Your task to perform on an android device: turn off picture-in-picture Image 0: 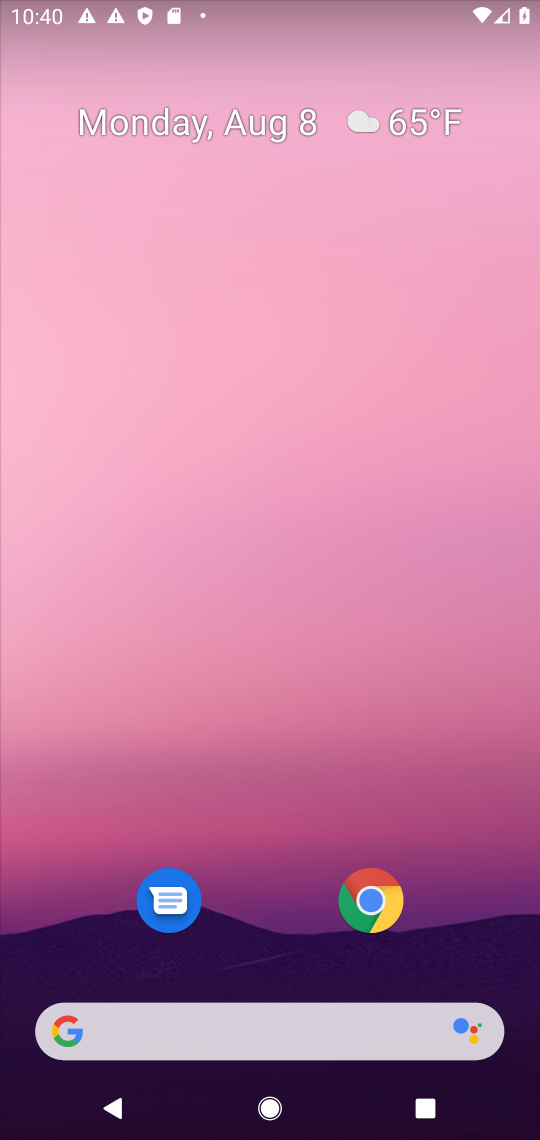
Step 0: drag from (237, 950) to (240, 149)
Your task to perform on an android device: turn off picture-in-picture Image 1: 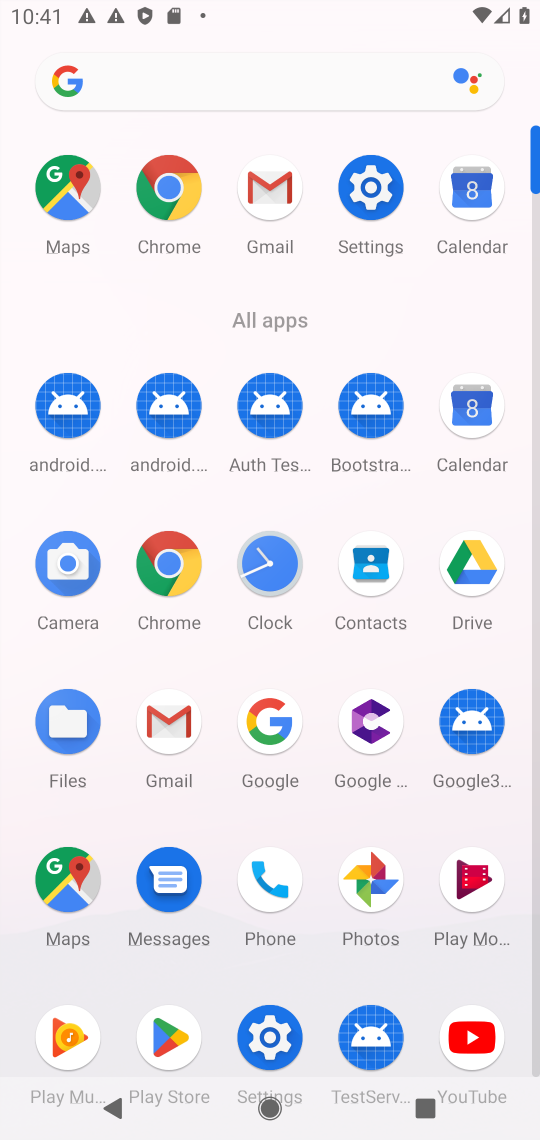
Step 1: click (374, 196)
Your task to perform on an android device: turn off picture-in-picture Image 2: 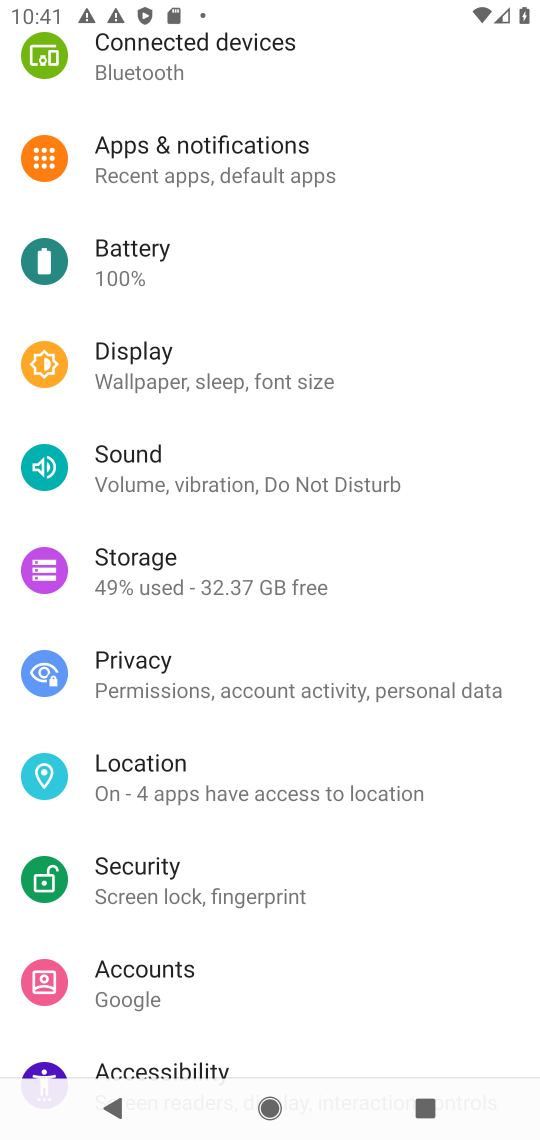
Step 2: click (198, 153)
Your task to perform on an android device: turn off picture-in-picture Image 3: 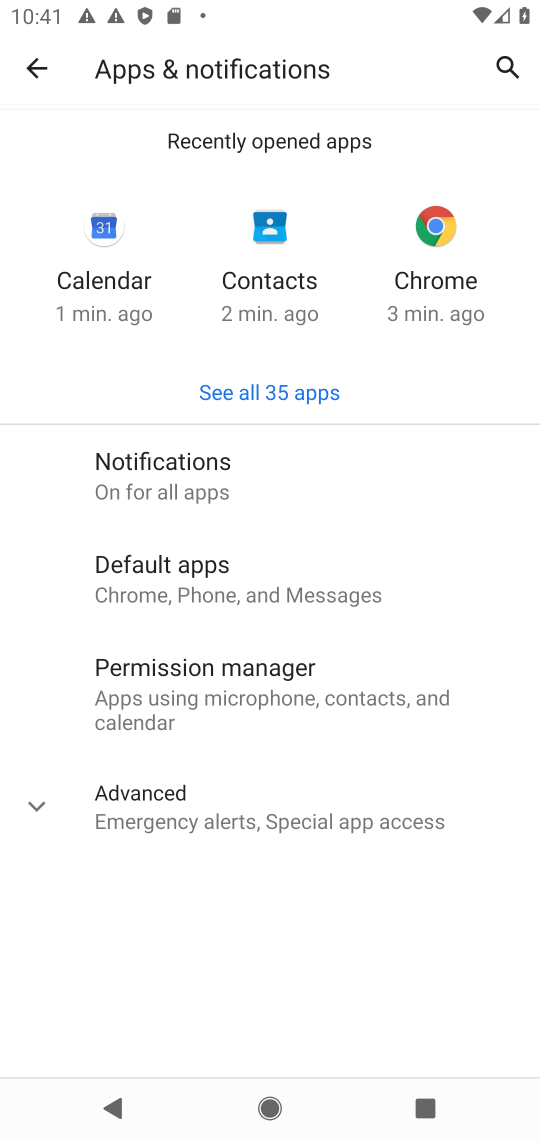
Step 3: click (146, 817)
Your task to perform on an android device: turn off picture-in-picture Image 4: 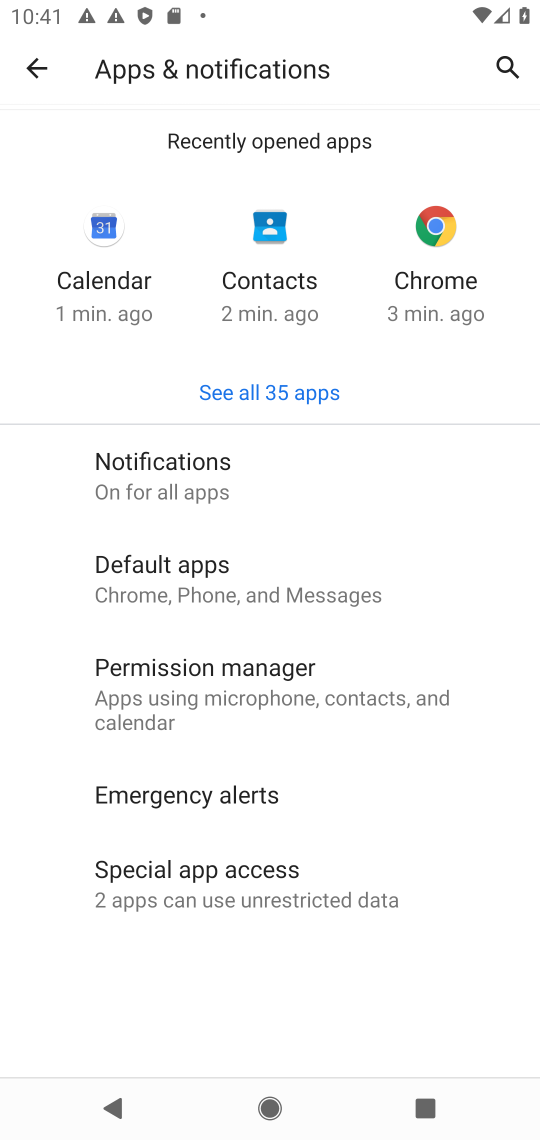
Step 4: click (186, 870)
Your task to perform on an android device: turn off picture-in-picture Image 5: 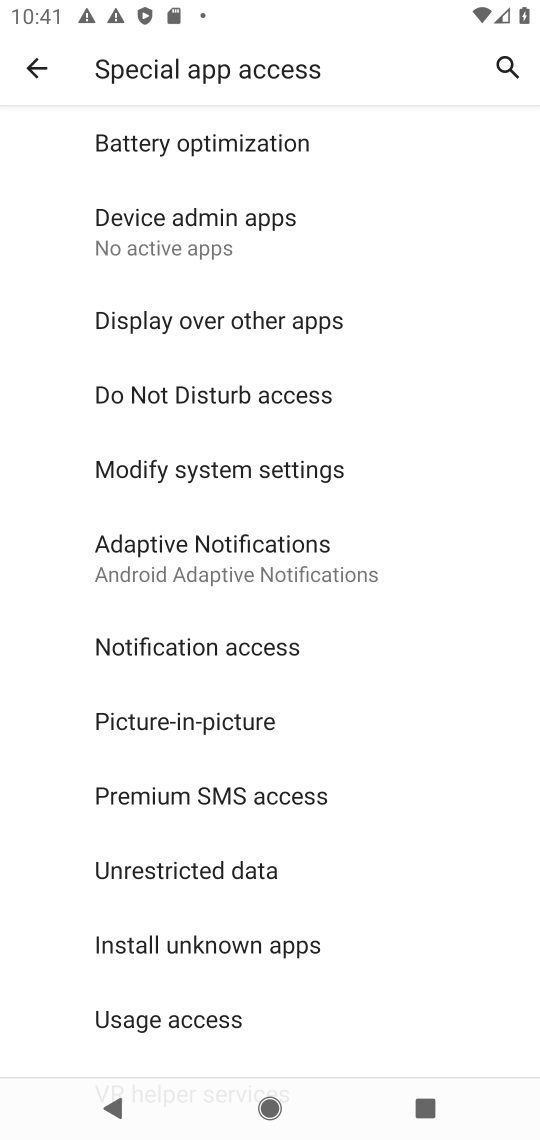
Step 5: click (221, 730)
Your task to perform on an android device: turn off picture-in-picture Image 6: 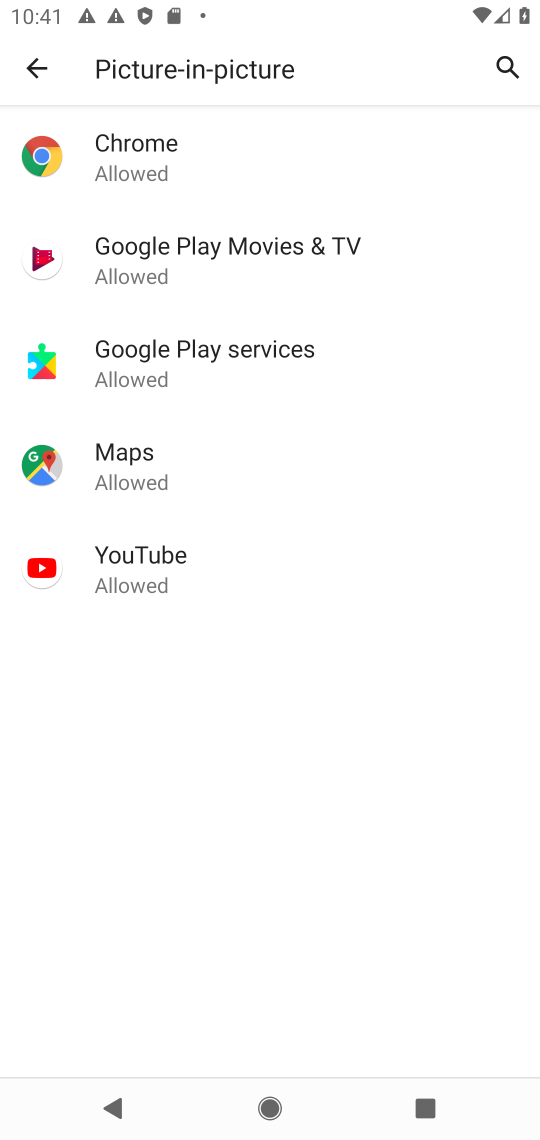
Step 6: click (143, 139)
Your task to perform on an android device: turn off picture-in-picture Image 7: 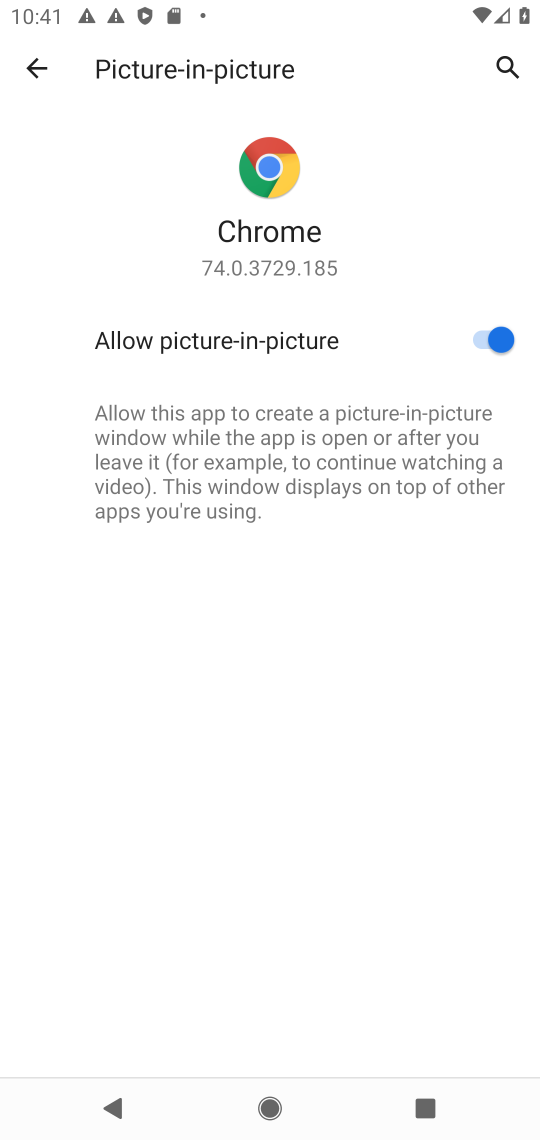
Step 7: click (473, 335)
Your task to perform on an android device: turn off picture-in-picture Image 8: 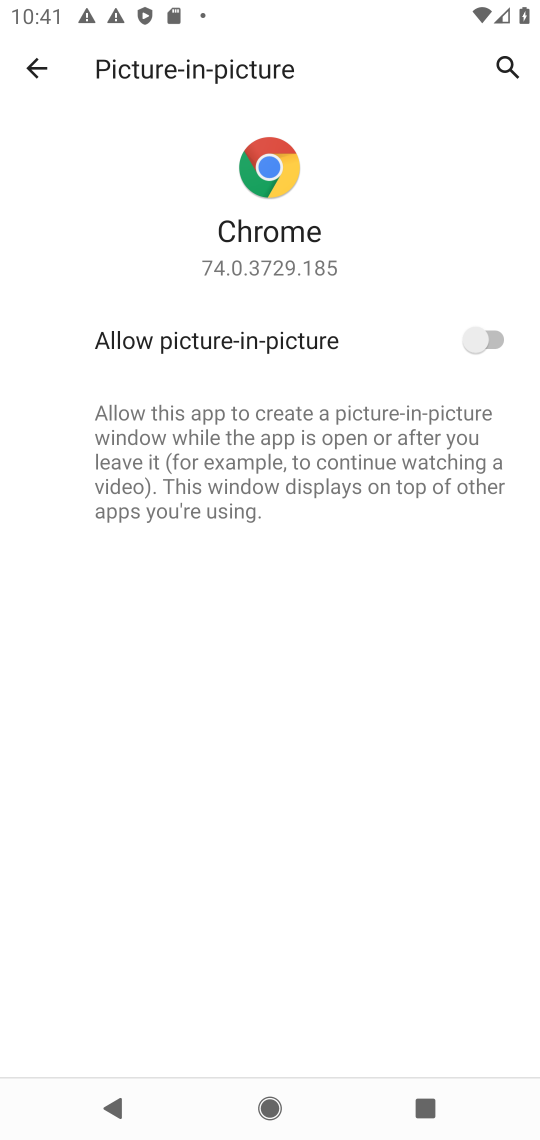
Step 8: task complete